Your task to perform on an android device: Add dell alienware to the cart on costco.com, then select checkout. Image 0: 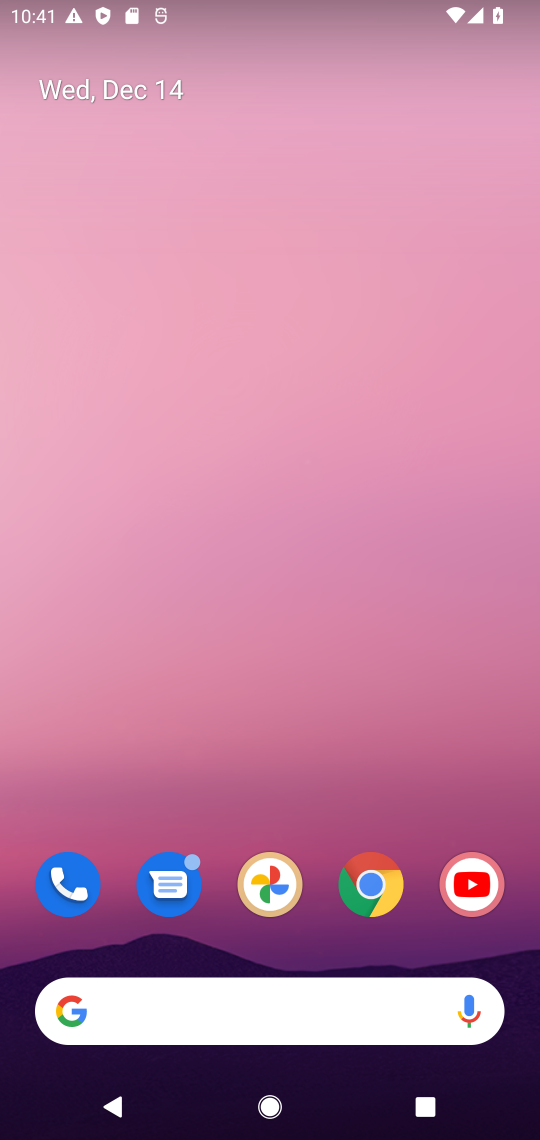
Step 0: click (376, 896)
Your task to perform on an android device: Add dell alienware to the cart on costco.com, then select checkout. Image 1: 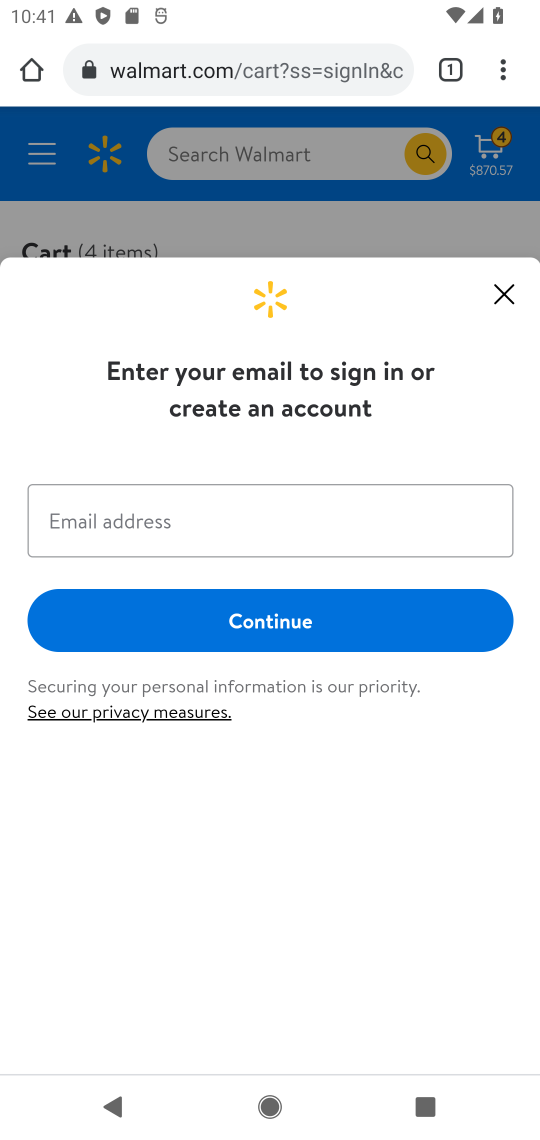
Step 1: click (342, 60)
Your task to perform on an android device: Add dell alienware to the cart on costco.com, then select checkout. Image 2: 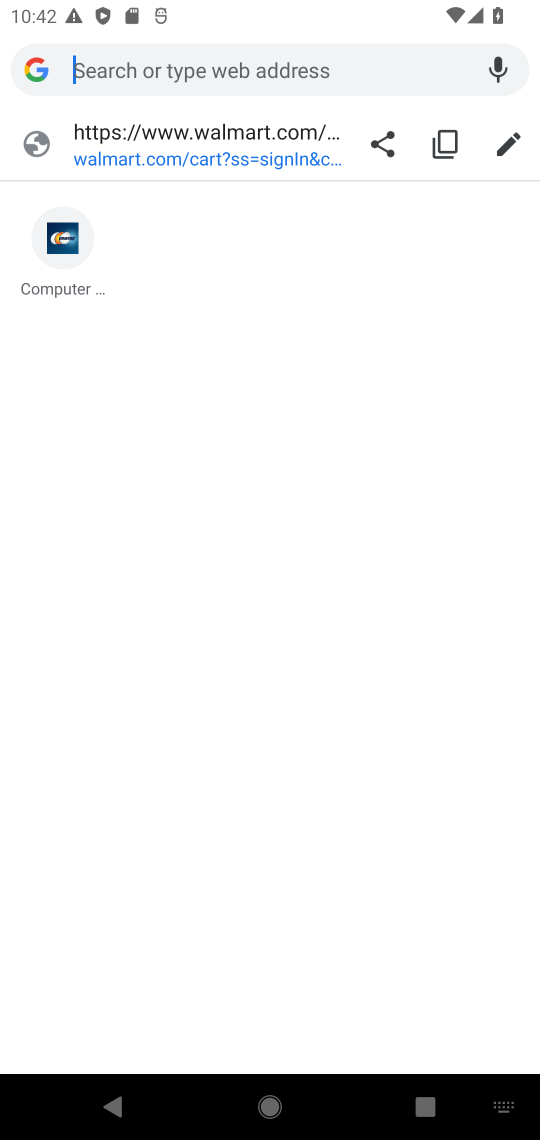
Step 2: type "costco.com"
Your task to perform on an android device: Add dell alienware to the cart on costco.com, then select checkout. Image 3: 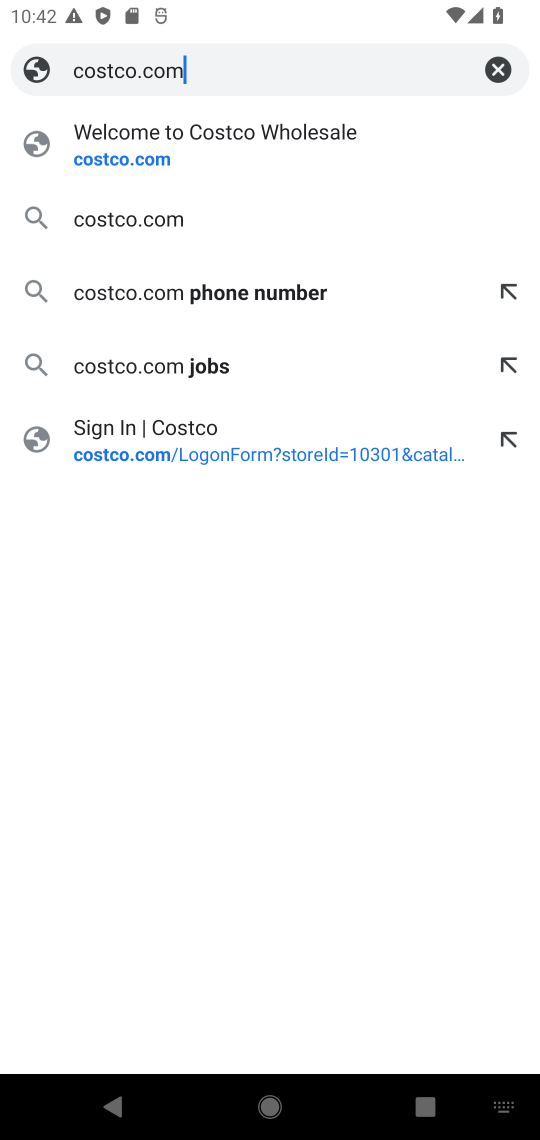
Step 3: click (138, 222)
Your task to perform on an android device: Add dell alienware to the cart on costco.com, then select checkout. Image 4: 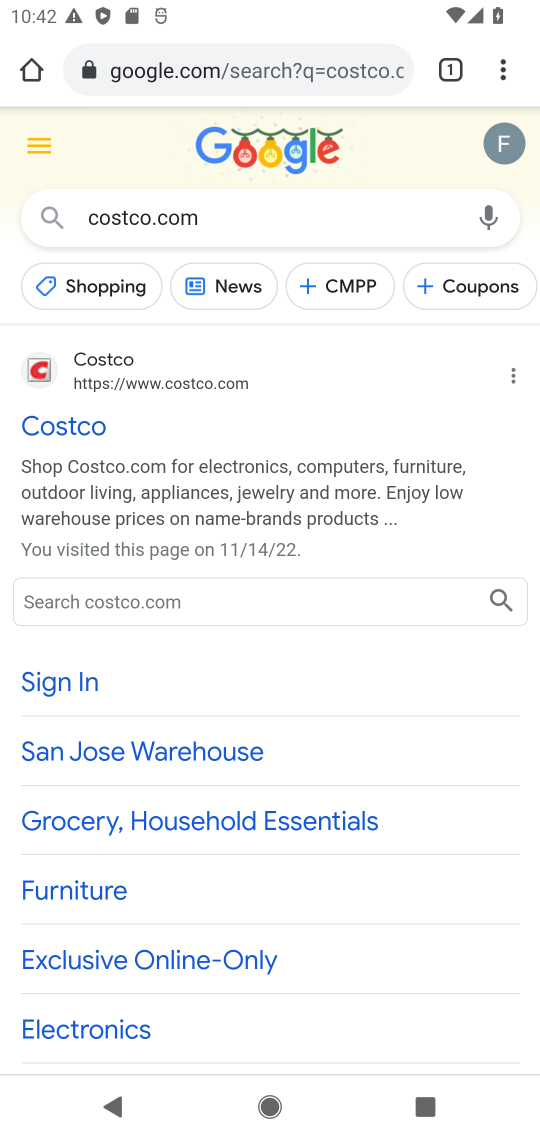
Step 4: click (159, 377)
Your task to perform on an android device: Add dell alienware to the cart on costco.com, then select checkout. Image 5: 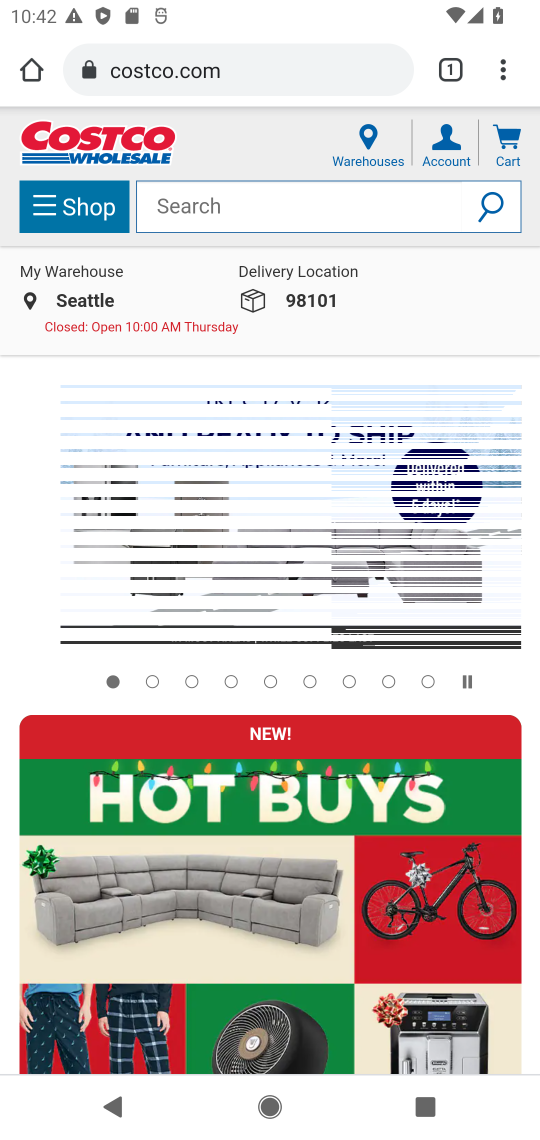
Step 5: click (365, 201)
Your task to perform on an android device: Add dell alienware to the cart on costco.com, then select checkout. Image 6: 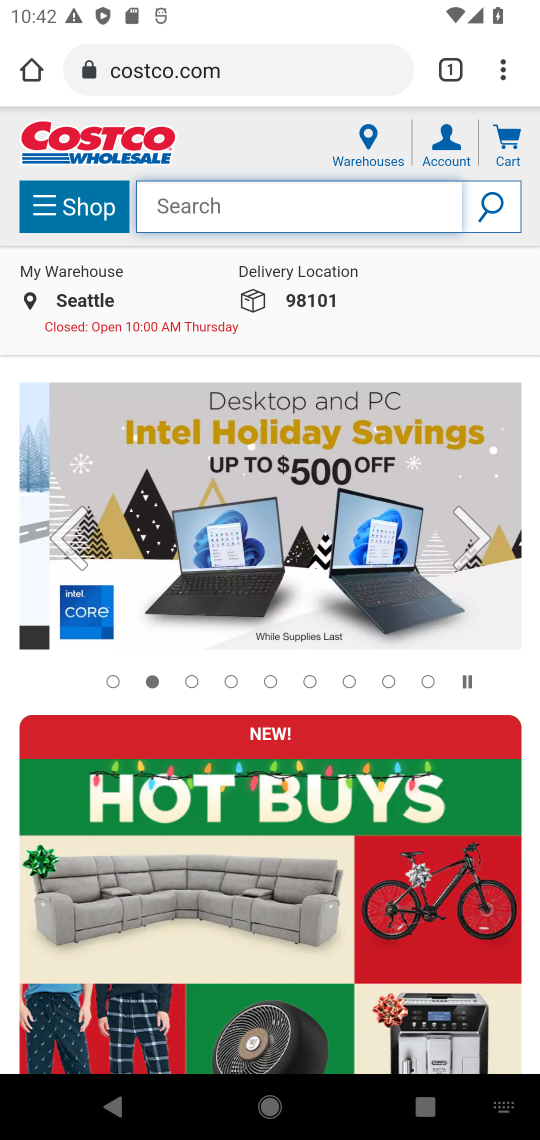
Step 6: type "dell alienware"
Your task to perform on an android device: Add dell alienware to the cart on costco.com, then select checkout. Image 7: 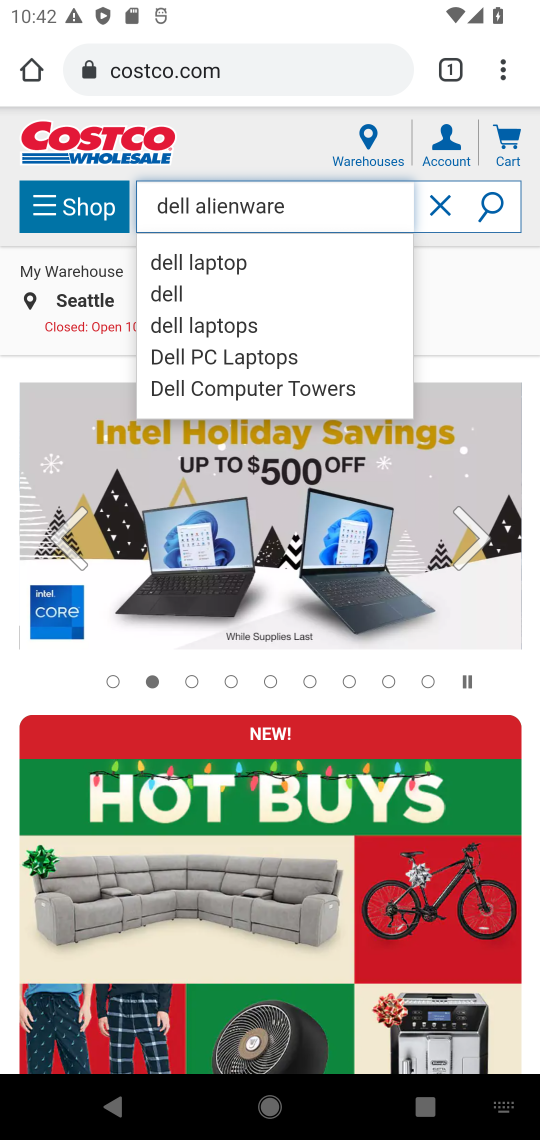
Step 7: click (498, 205)
Your task to perform on an android device: Add dell alienware to the cart on costco.com, then select checkout. Image 8: 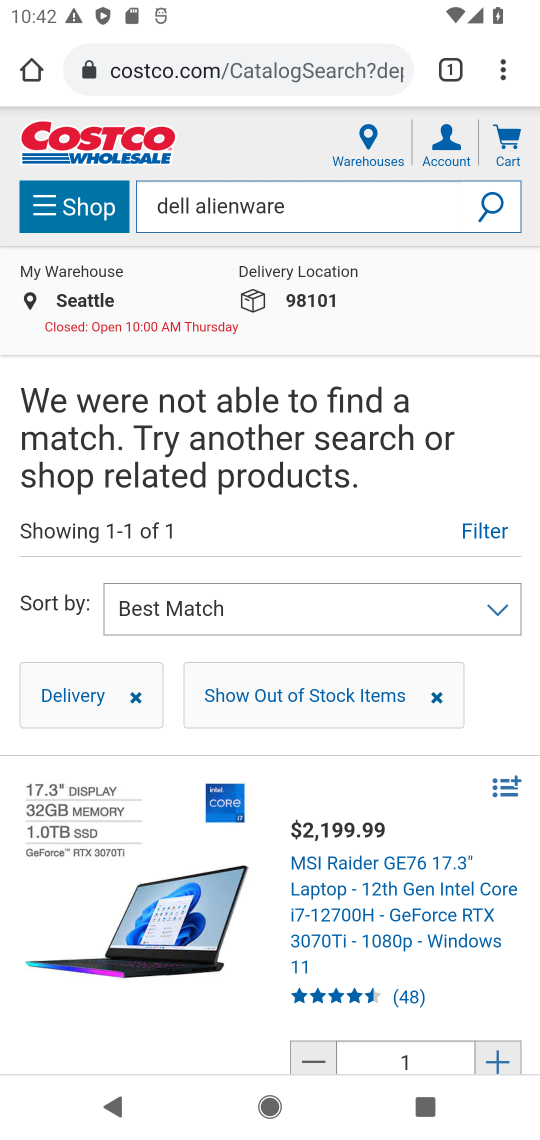
Step 8: task complete